Your task to perform on an android device: toggle javascript in the chrome app Image 0: 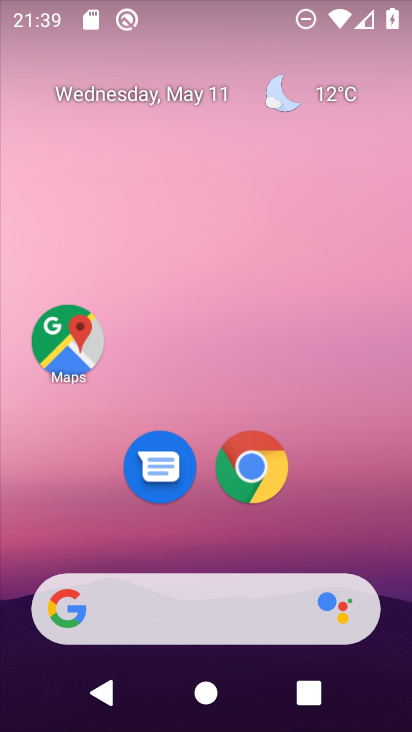
Step 0: click (250, 464)
Your task to perform on an android device: toggle javascript in the chrome app Image 1: 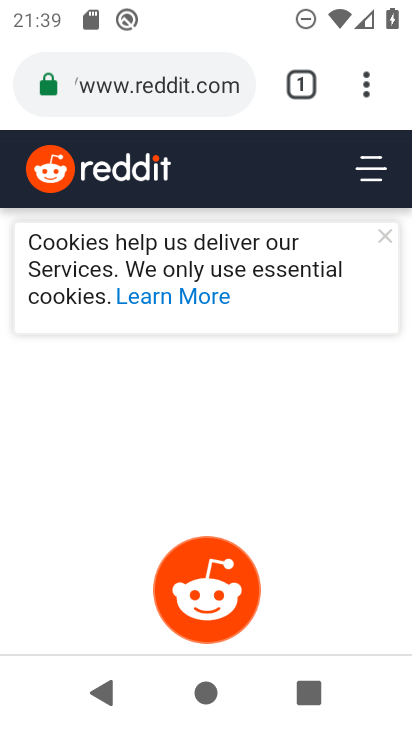
Step 1: click (362, 85)
Your task to perform on an android device: toggle javascript in the chrome app Image 2: 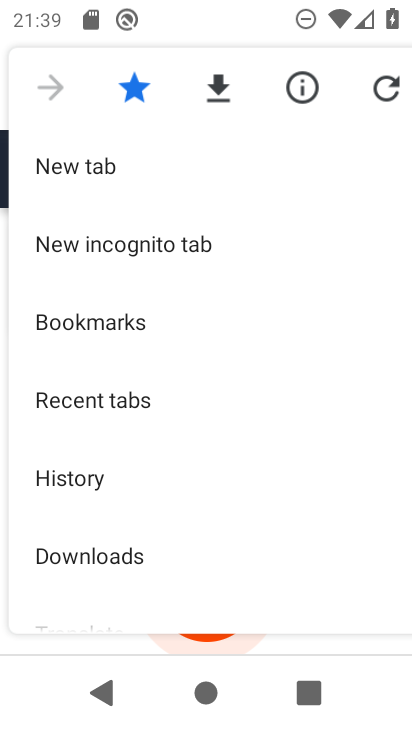
Step 2: drag from (189, 557) to (205, 111)
Your task to perform on an android device: toggle javascript in the chrome app Image 3: 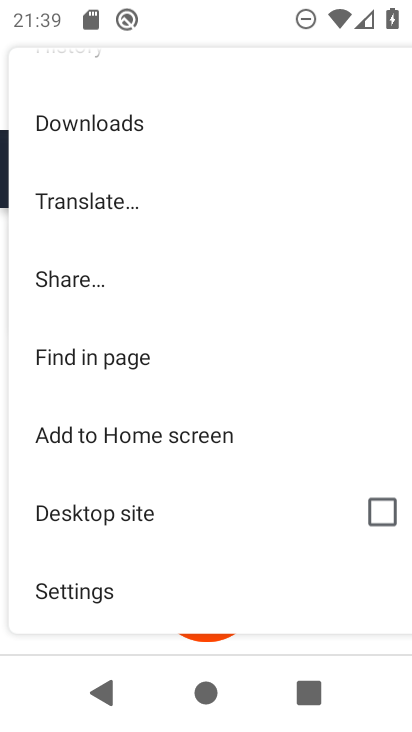
Step 3: click (128, 592)
Your task to perform on an android device: toggle javascript in the chrome app Image 4: 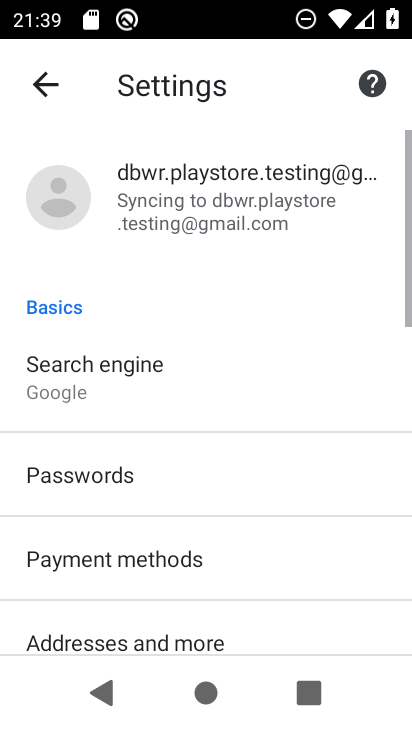
Step 4: drag from (231, 622) to (245, 132)
Your task to perform on an android device: toggle javascript in the chrome app Image 5: 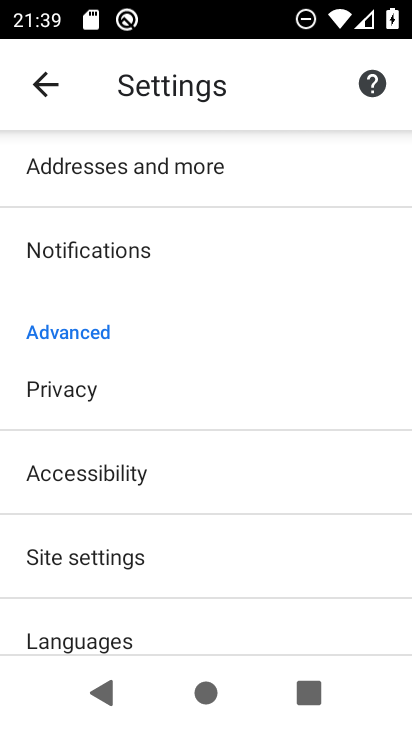
Step 5: click (167, 547)
Your task to perform on an android device: toggle javascript in the chrome app Image 6: 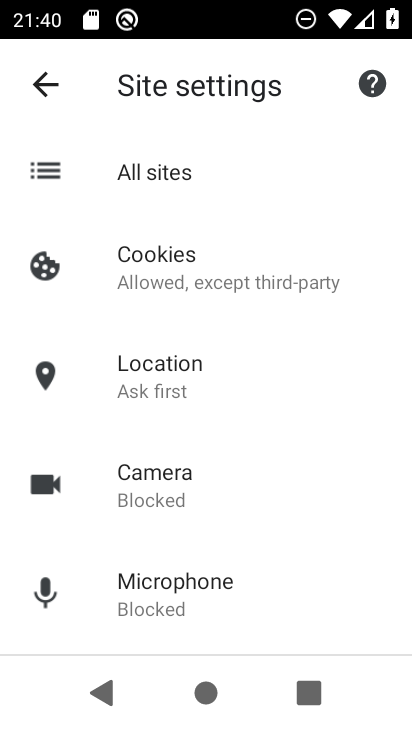
Step 6: drag from (230, 605) to (217, 171)
Your task to perform on an android device: toggle javascript in the chrome app Image 7: 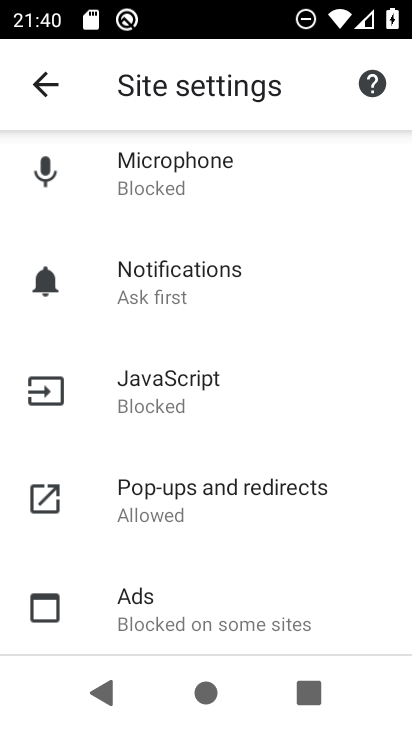
Step 7: click (229, 388)
Your task to perform on an android device: toggle javascript in the chrome app Image 8: 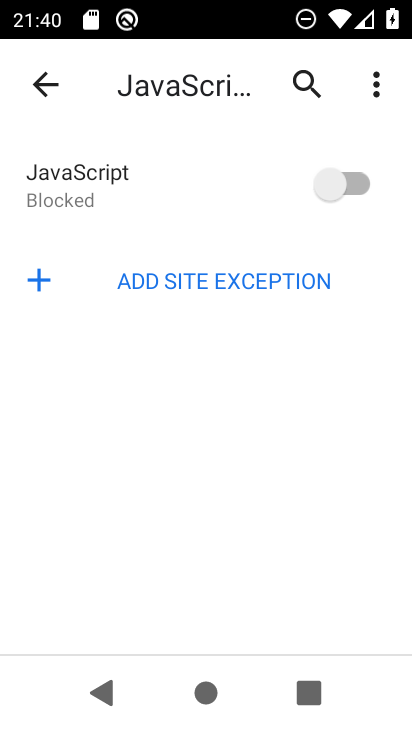
Step 8: click (355, 174)
Your task to perform on an android device: toggle javascript in the chrome app Image 9: 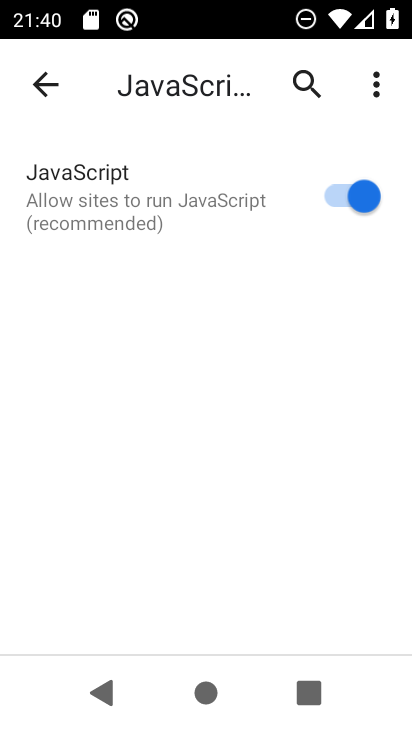
Step 9: task complete